Your task to perform on an android device: turn off sleep mode Image 0: 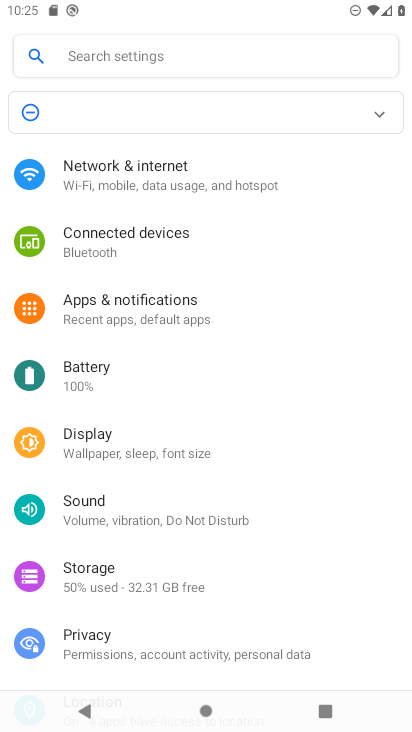
Step 0: click (399, 678)
Your task to perform on an android device: turn off sleep mode Image 1: 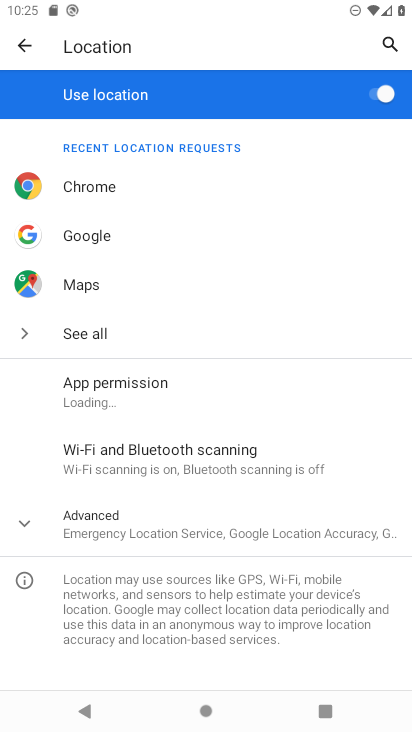
Step 1: press home button
Your task to perform on an android device: turn off sleep mode Image 2: 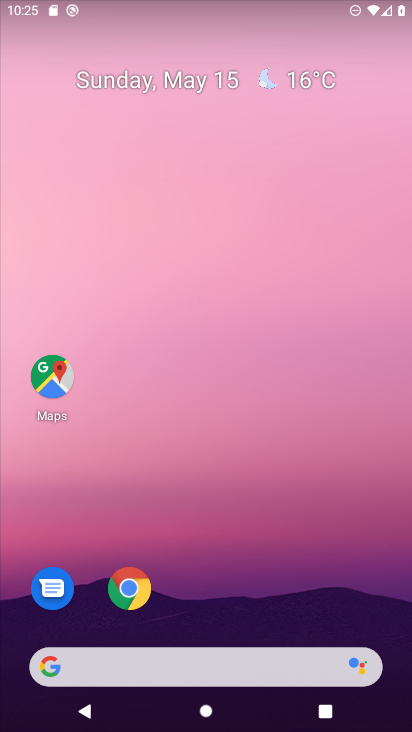
Step 2: drag from (200, 632) to (273, 66)
Your task to perform on an android device: turn off sleep mode Image 3: 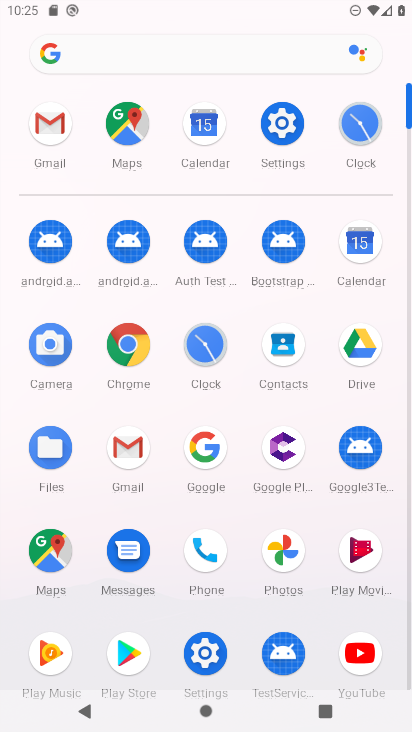
Step 3: click (270, 129)
Your task to perform on an android device: turn off sleep mode Image 4: 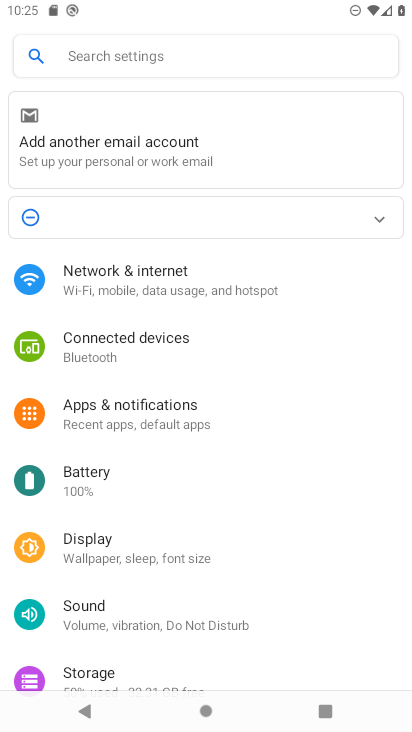
Step 4: click (171, 562)
Your task to perform on an android device: turn off sleep mode Image 5: 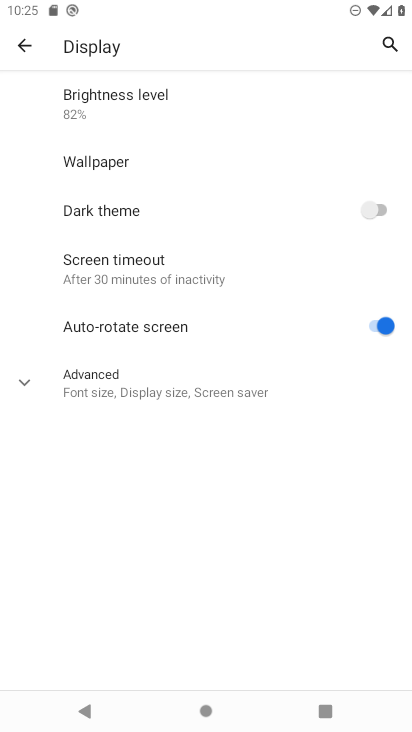
Step 5: click (132, 285)
Your task to perform on an android device: turn off sleep mode Image 6: 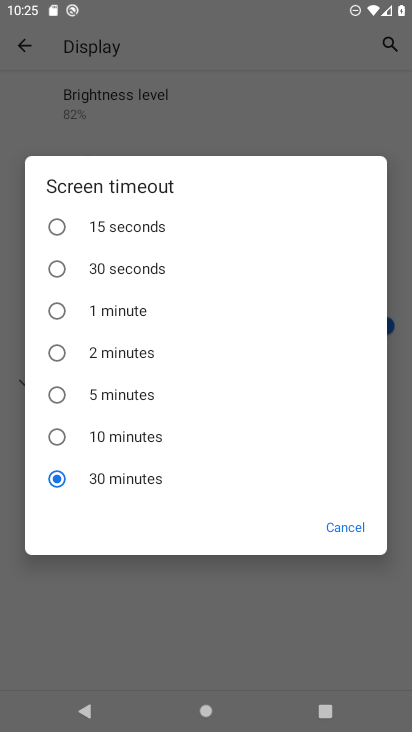
Step 6: click (145, 231)
Your task to perform on an android device: turn off sleep mode Image 7: 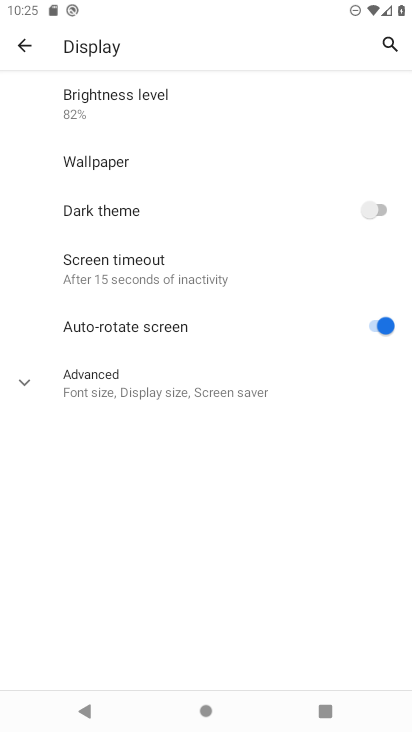
Step 7: task complete